Your task to perform on an android device: Open Youtube and go to "Your channel" Image 0: 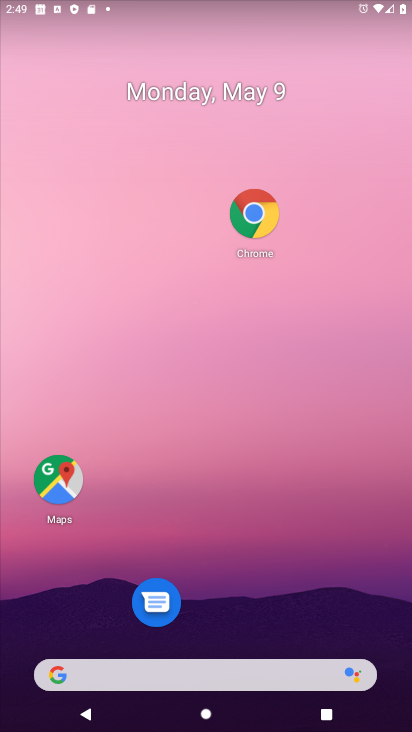
Step 0: drag from (365, 650) to (333, 215)
Your task to perform on an android device: Open Youtube and go to "Your channel" Image 1: 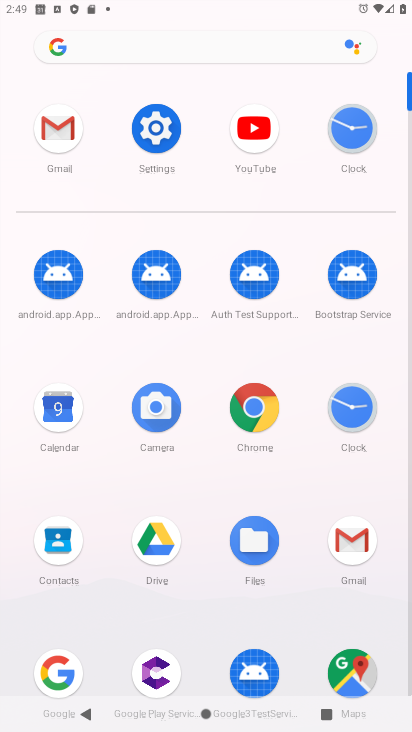
Step 1: click (265, 151)
Your task to perform on an android device: Open Youtube and go to "Your channel" Image 2: 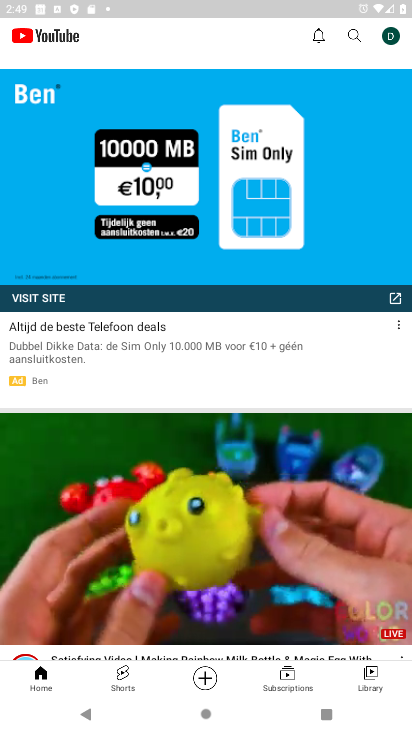
Step 2: click (381, 682)
Your task to perform on an android device: Open Youtube and go to "Your channel" Image 3: 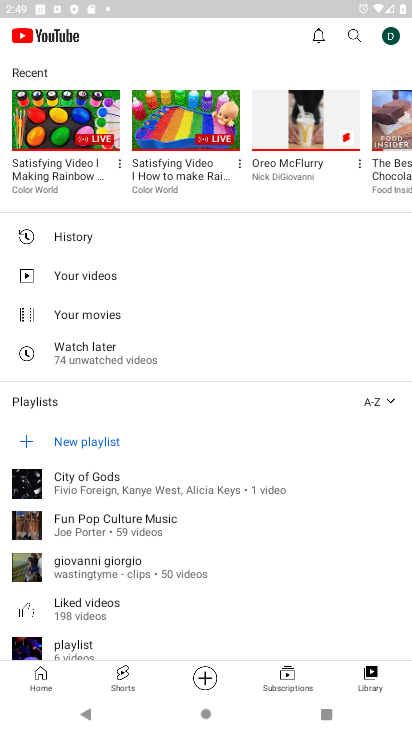
Step 3: click (149, 266)
Your task to perform on an android device: Open Youtube and go to "Your channel" Image 4: 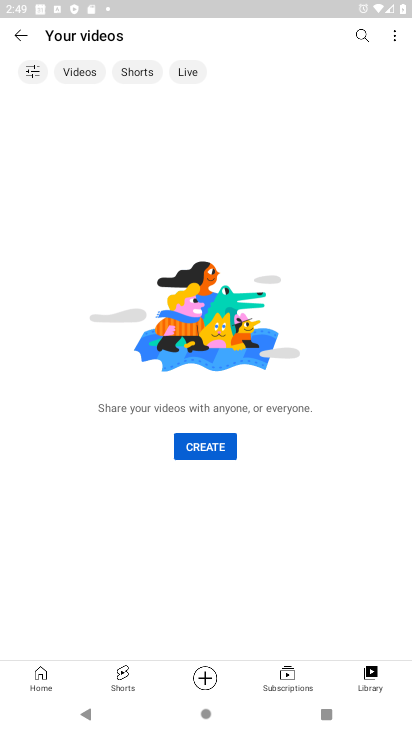
Step 4: task complete